Your task to perform on an android device: allow notifications from all sites in the chrome app Image 0: 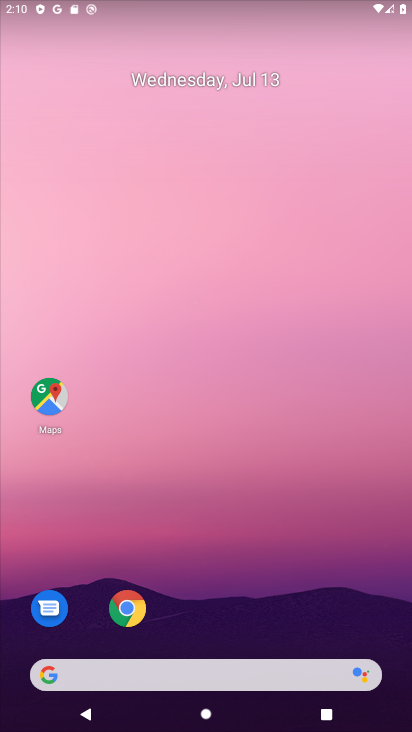
Step 0: click (126, 613)
Your task to perform on an android device: allow notifications from all sites in the chrome app Image 1: 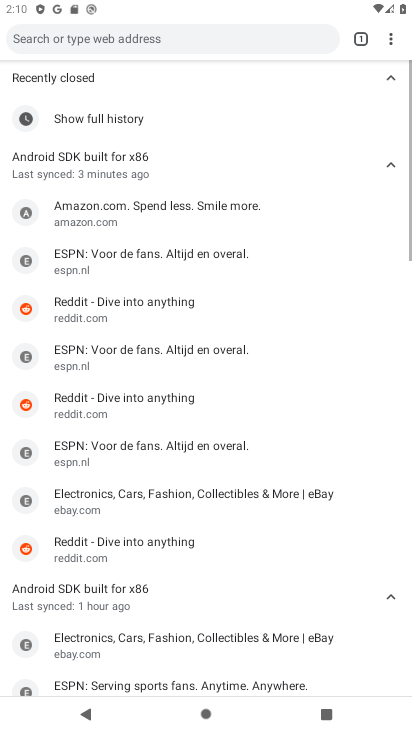
Step 1: click (396, 36)
Your task to perform on an android device: allow notifications from all sites in the chrome app Image 2: 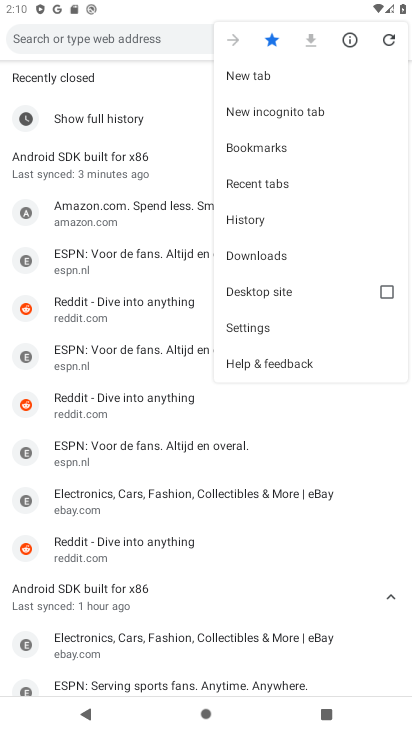
Step 2: click (242, 333)
Your task to perform on an android device: allow notifications from all sites in the chrome app Image 3: 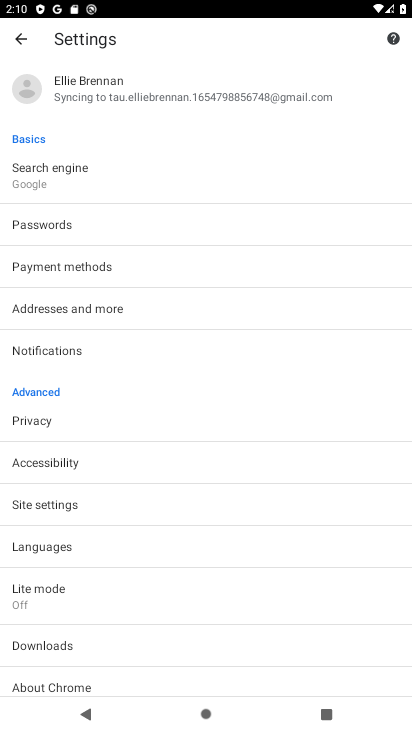
Step 3: click (103, 344)
Your task to perform on an android device: allow notifications from all sites in the chrome app Image 4: 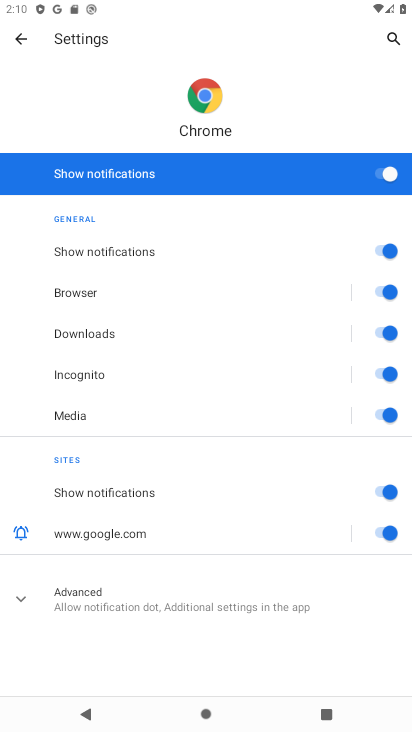
Step 4: click (134, 593)
Your task to perform on an android device: allow notifications from all sites in the chrome app Image 5: 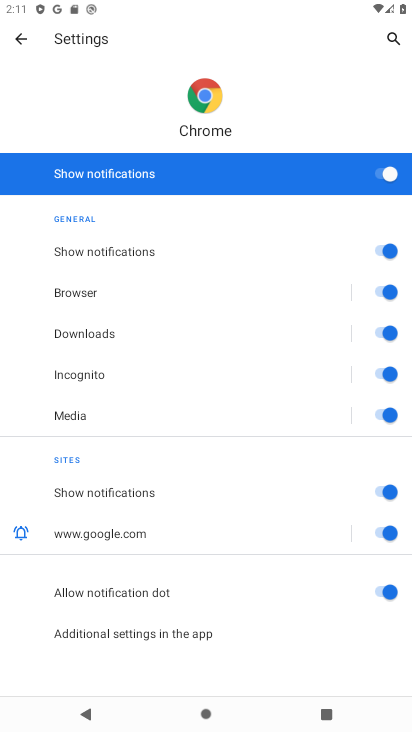
Step 5: task complete